Your task to perform on an android device: check google app version Image 0: 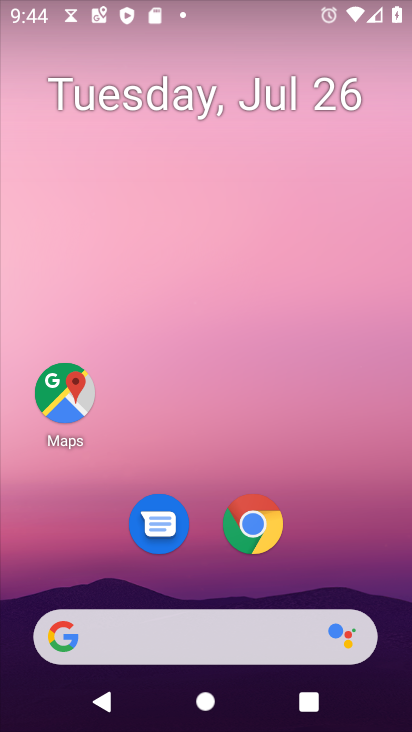
Step 0: press home button
Your task to perform on an android device: check google app version Image 1: 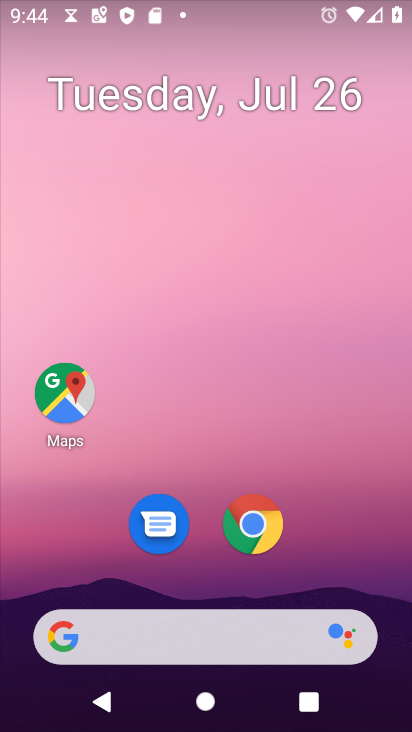
Step 1: drag from (175, 644) to (342, 159)
Your task to perform on an android device: check google app version Image 2: 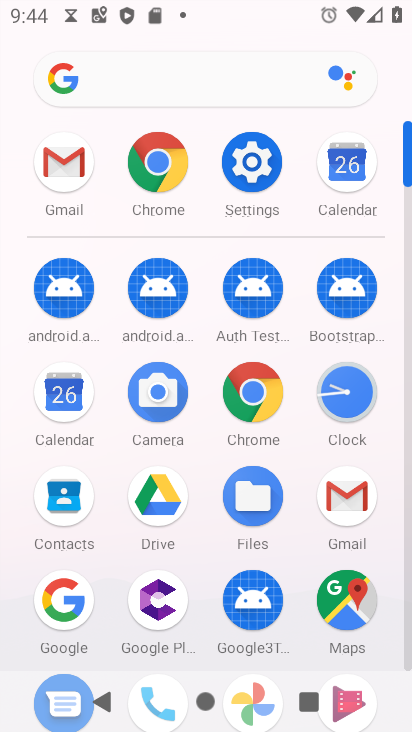
Step 2: drag from (198, 611) to (290, 205)
Your task to perform on an android device: check google app version Image 3: 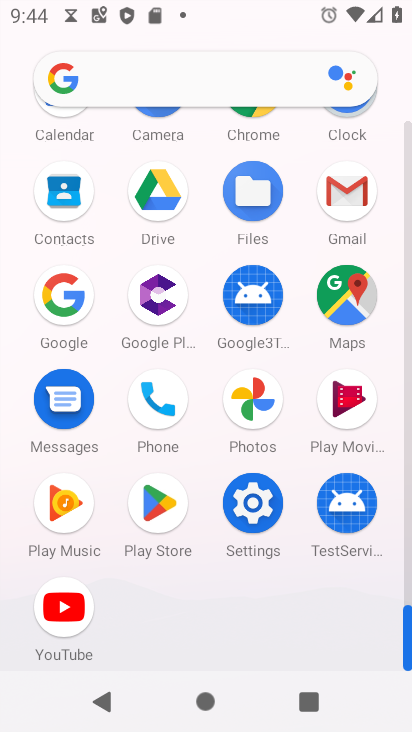
Step 3: drag from (233, 292) to (209, 544)
Your task to perform on an android device: check google app version Image 4: 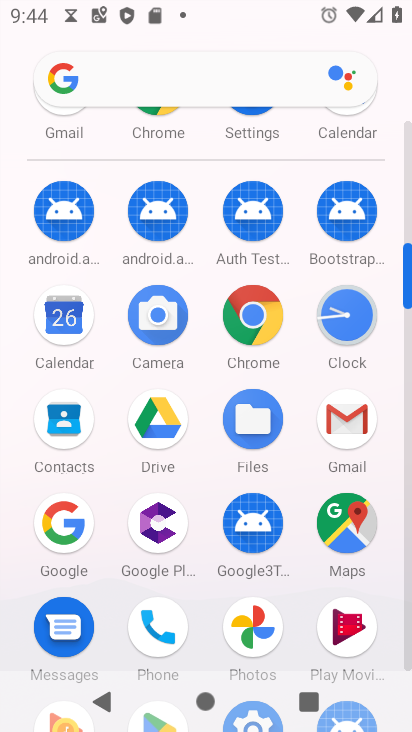
Step 4: click (69, 520)
Your task to perform on an android device: check google app version Image 5: 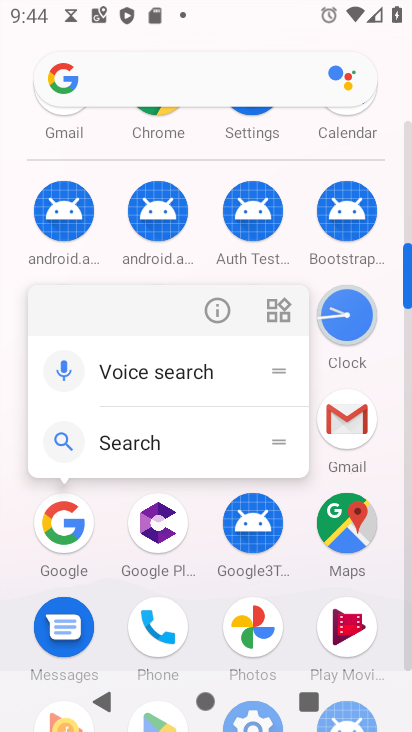
Step 5: click (210, 308)
Your task to perform on an android device: check google app version Image 6: 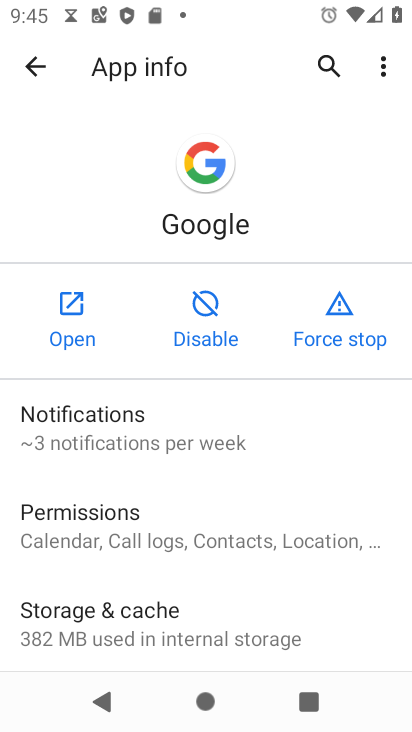
Step 6: task complete